Your task to perform on an android device: choose inbox layout in the gmail app Image 0: 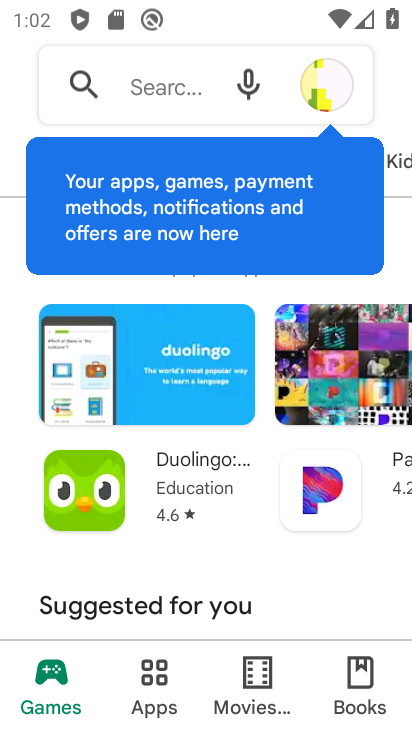
Step 0: press home button
Your task to perform on an android device: choose inbox layout in the gmail app Image 1: 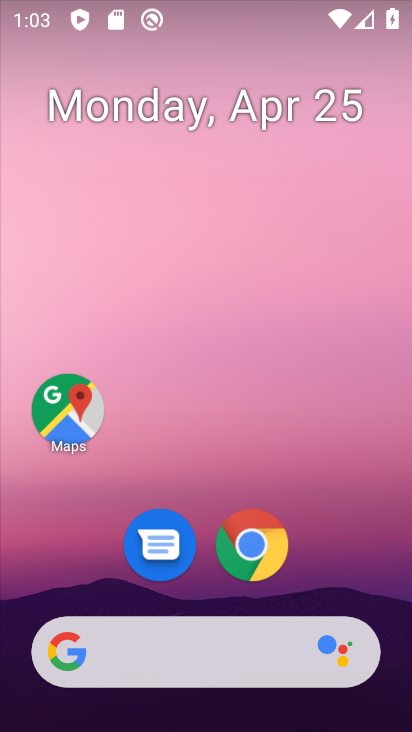
Step 1: drag from (315, 515) to (312, 99)
Your task to perform on an android device: choose inbox layout in the gmail app Image 2: 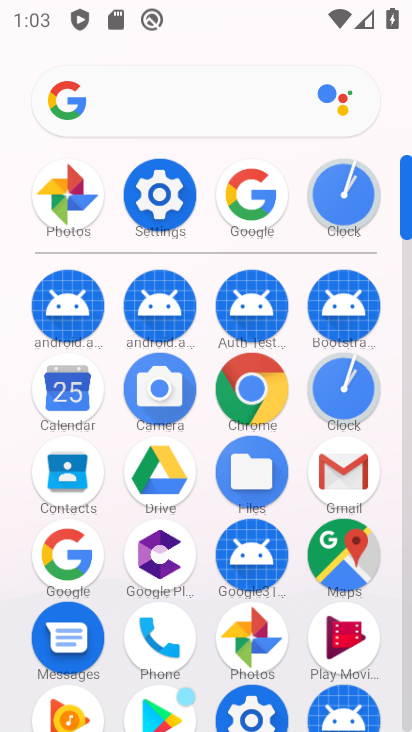
Step 2: click (329, 473)
Your task to perform on an android device: choose inbox layout in the gmail app Image 3: 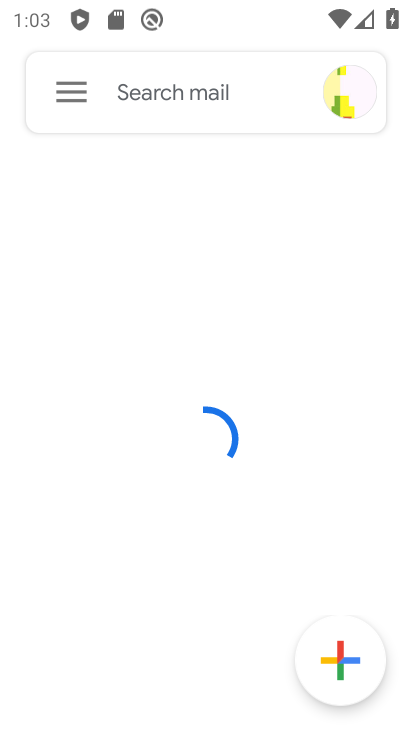
Step 3: click (74, 94)
Your task to perform on an android device: choose inbox layout in the gmail app Image 4: 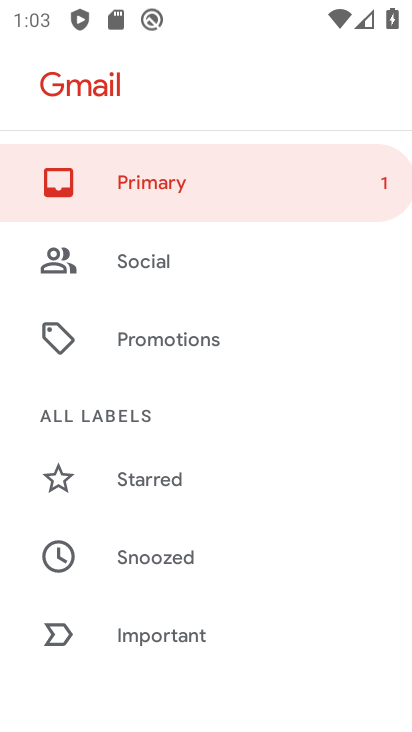
Step 4: drag from (222, 571) to (246, 187)
Your task to perform on an android device: choose inbox layout in the gmail app Image 5: 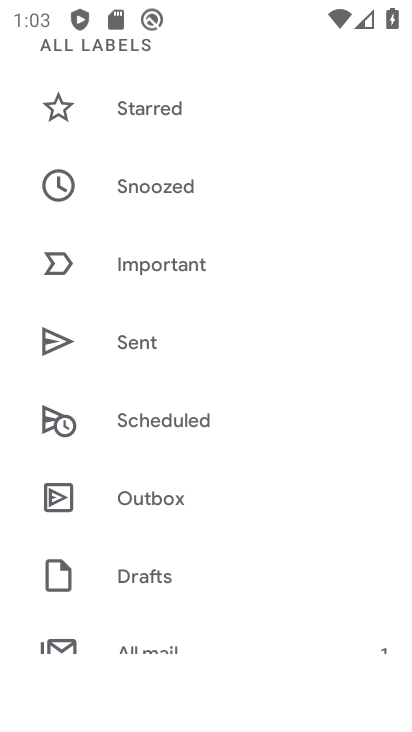
Step 5: drag from (223, 545) to (221, 244)
Your task to perform on an android device: choose inbox layout in the gmail app Image 6: 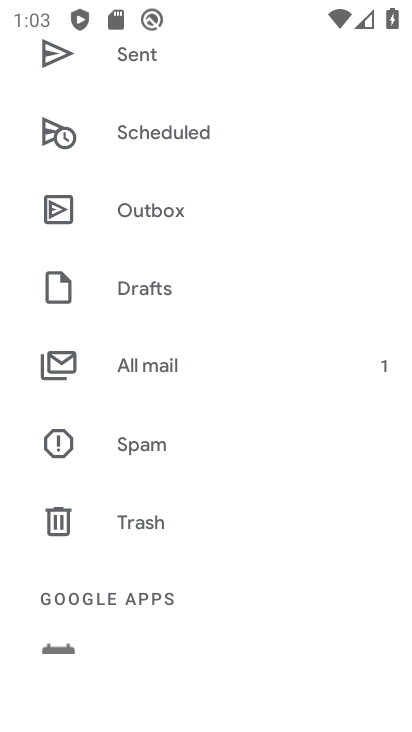
Step 6: drag from (200, 442) to (224, 195)
Your task to perform on an android device: choose inbox layout in the gmail app Image 7: 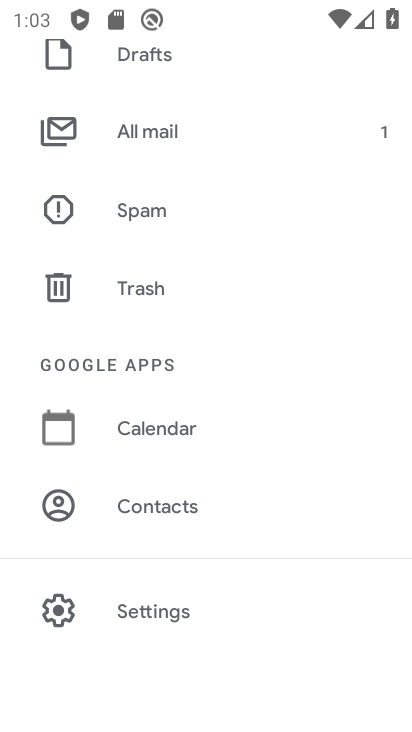
Step 7: click (169, 614)
Your task to perform on an android device: choose inbox layout in the gmail app Image 8: 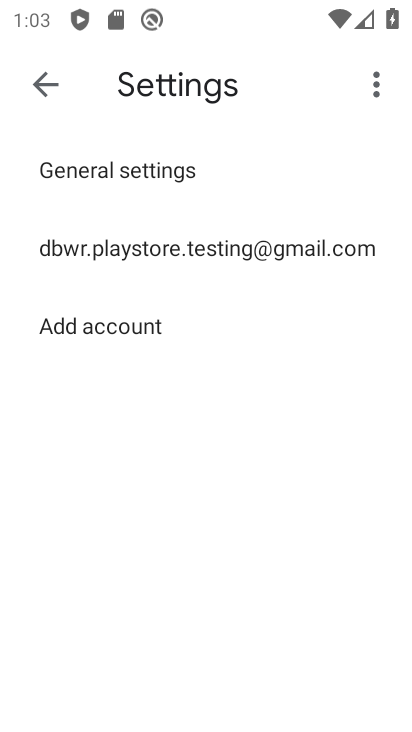
Step 8: click (177, 259)
Your task to perform on an android device: choose inbox layout in the gmail app Image 9: 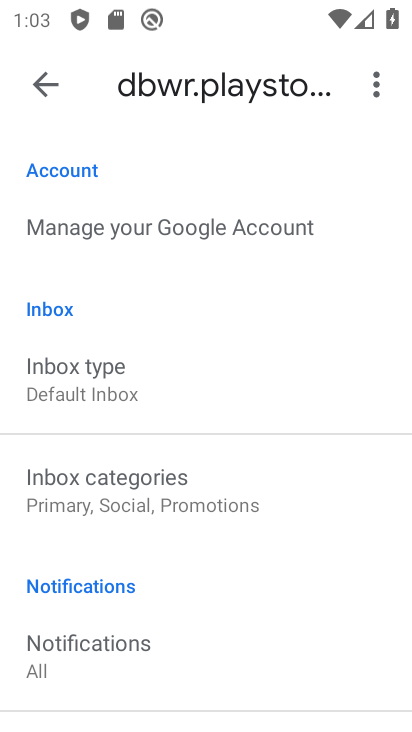
Step 9: click (85, 398)
Your task to perform on an android device: choose inbox layout in the gmail app Image 10: 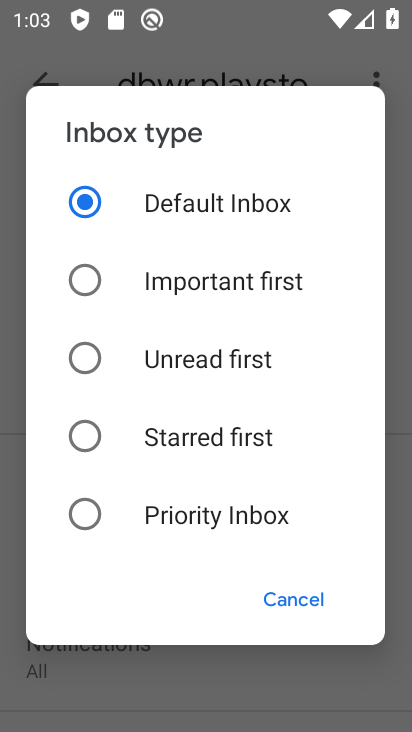
Step 10: click (79, 514)
Your task to perform on an android device: choose inbox layout in the gmail app Image 11: 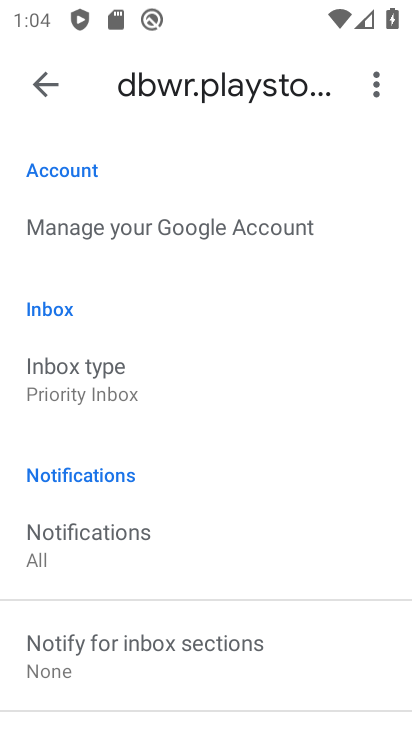
Step 11: task complete